Your task to perform on an android device: Open maps Image 0: 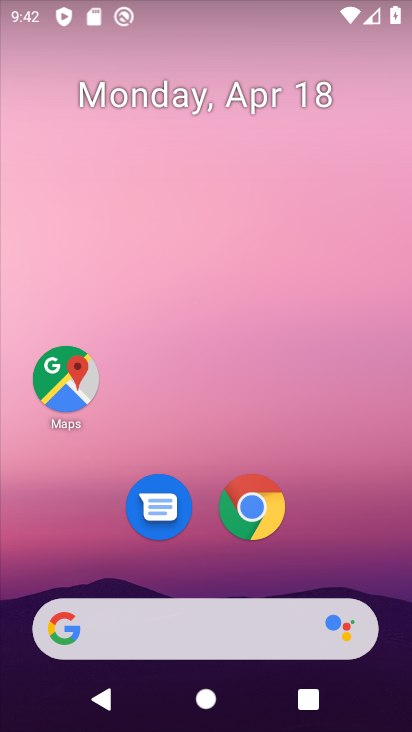
Step 0: drag from (231, 563) to (150, 42)
Your task to perform on an android device: Open maps Image 1: 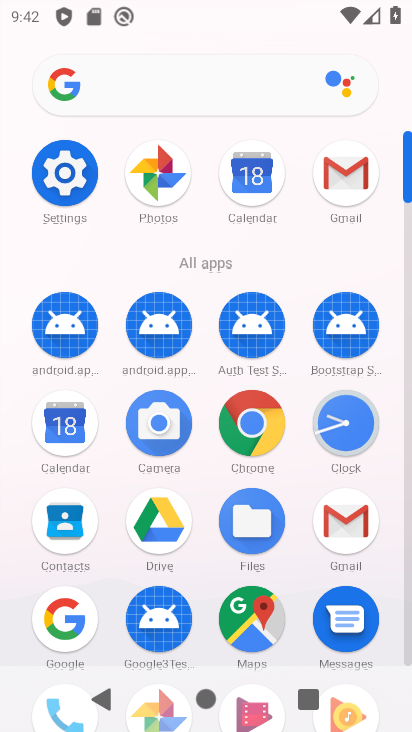
Step 1: click (254, 613)
Your task to perform on an android device: Open maps Image 2: 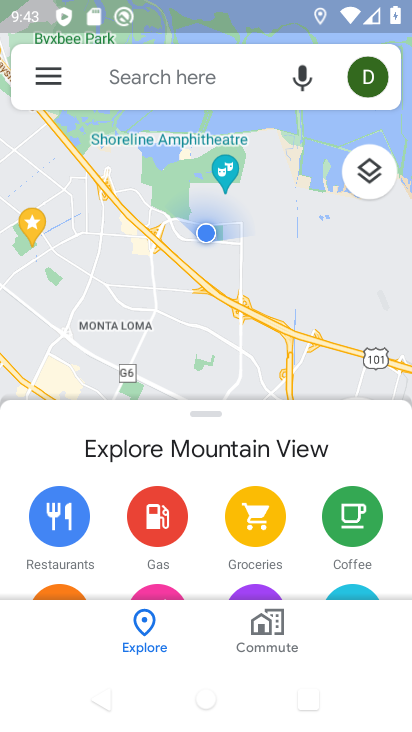
Step 2: task complete